Your task to perform on an android device: toggle translation in the chrome app Image 0: 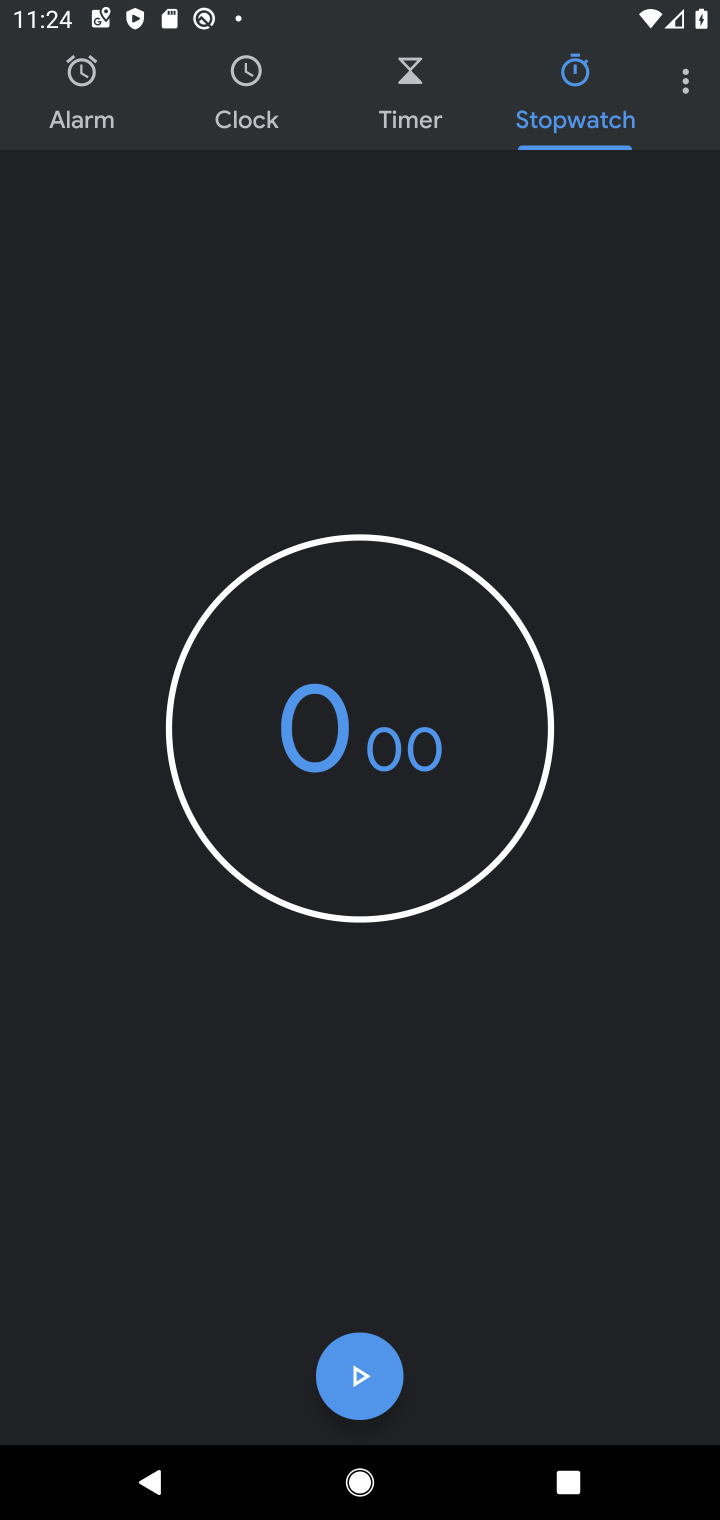
Step 0: press back button
Your task to perform on an android device: toggle translation in the chrome app Image 1: 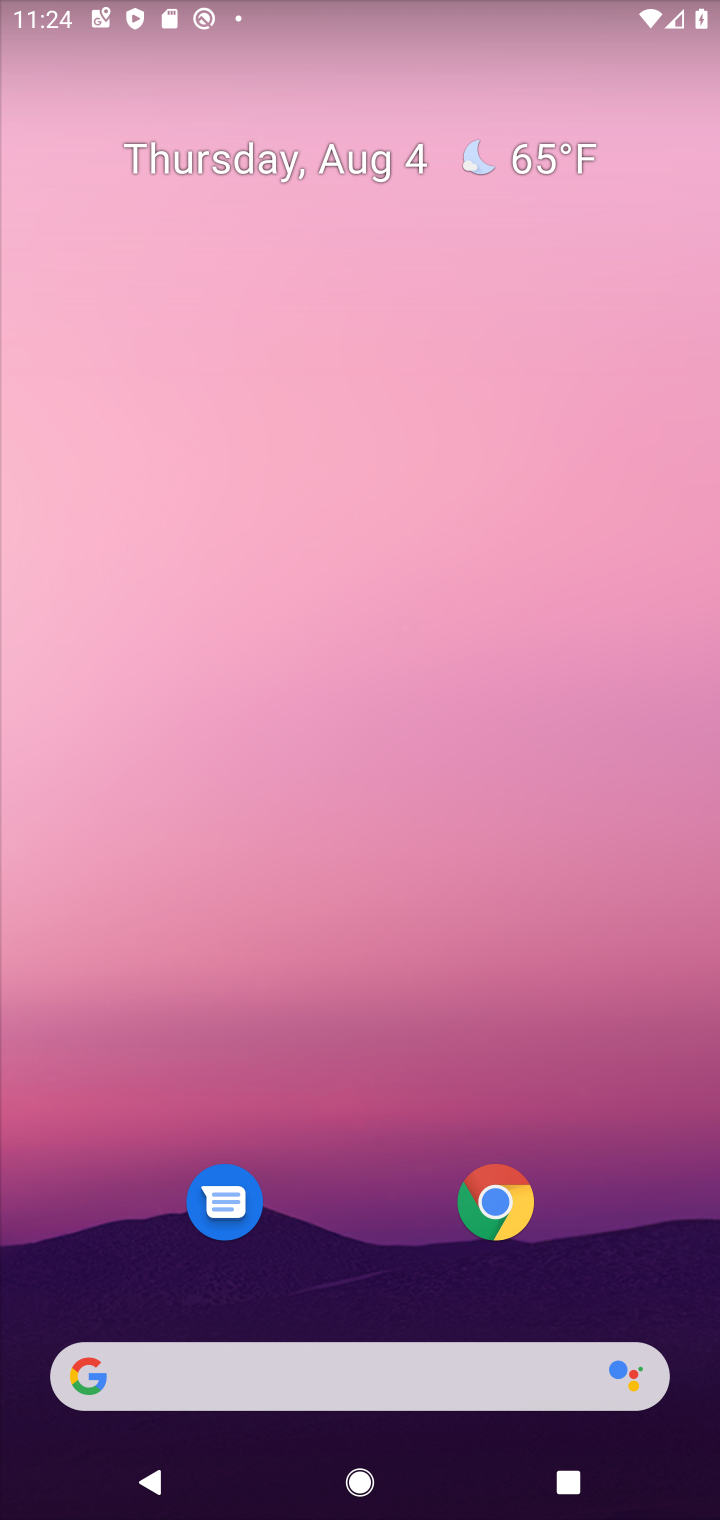
Step 1: click (482, 1180)
Your task to perform on an android device: toggle translation in the chrome app Image 2: 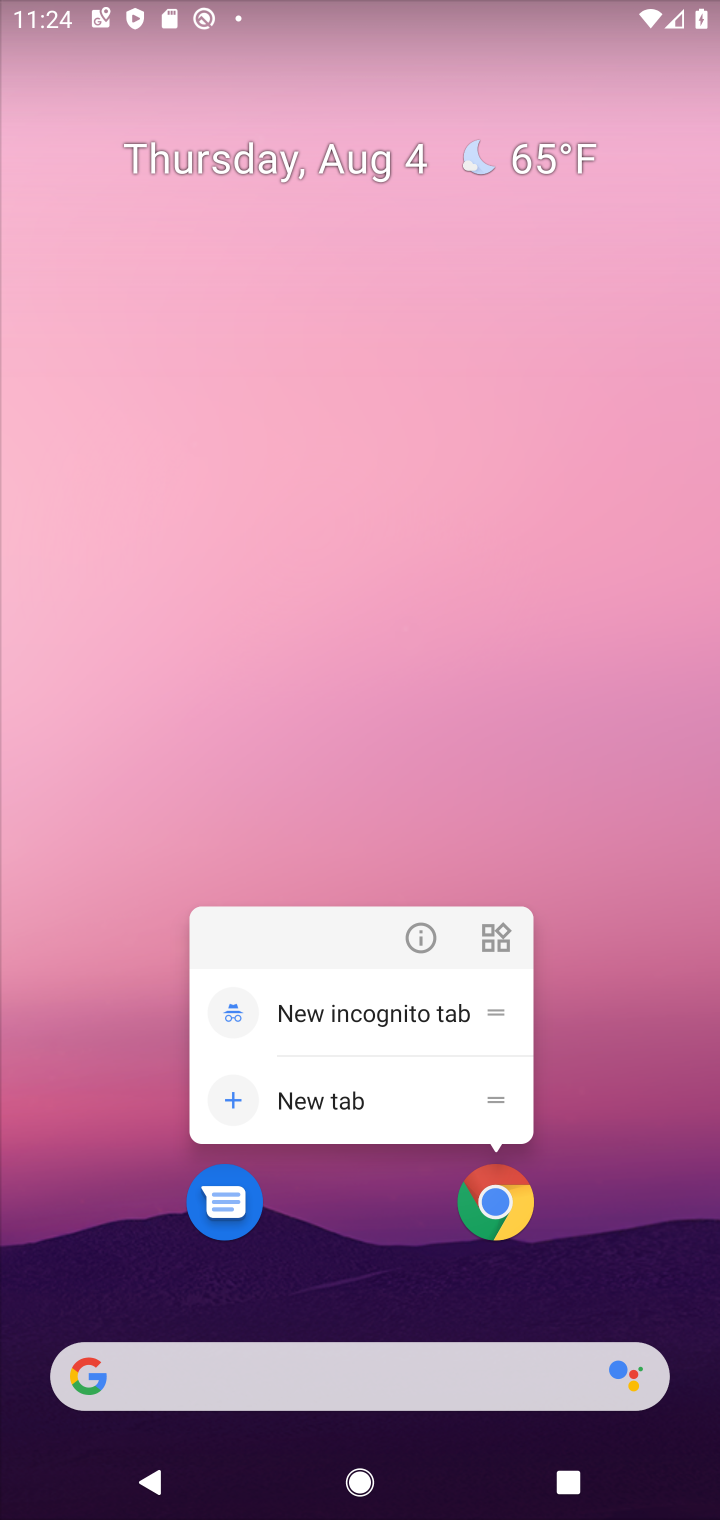
Step 2: click (495, 1199)
Your task to perform on an android device: toggle translation in the chrome app Image 3: 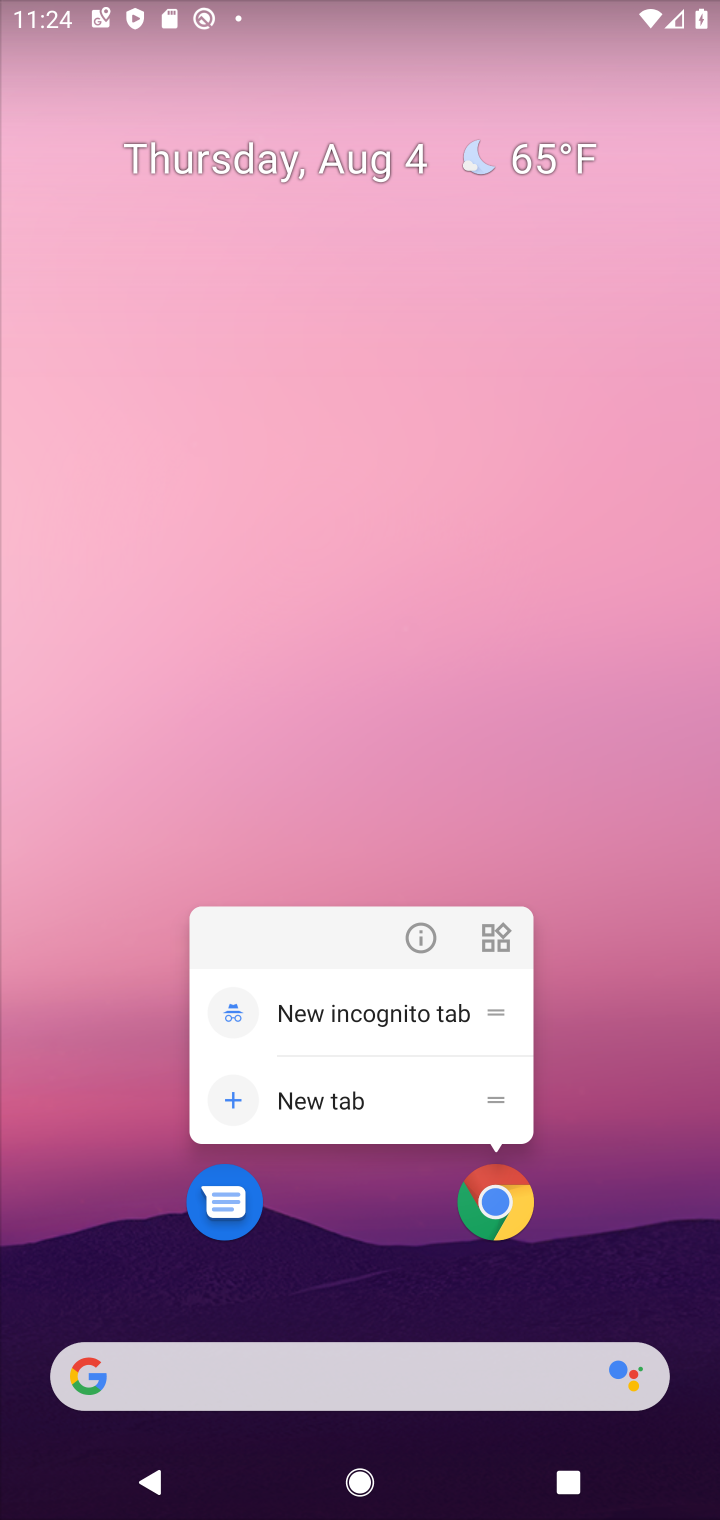
Step 3: click (492, 1202)
Your task to perform on an android device: toggle translation in the chrome app Image 4: 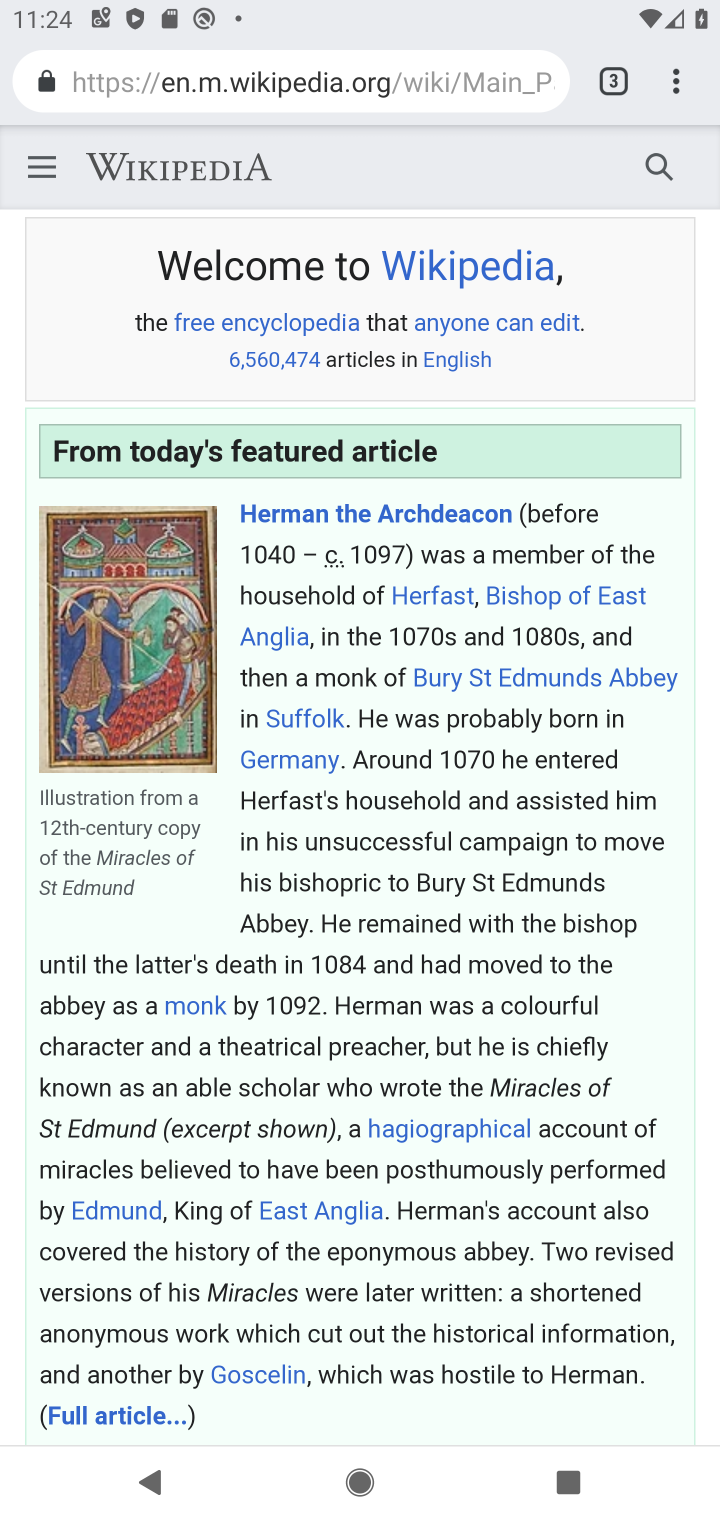
Step 4: drag from (663, 63) to (394, 987)
Your task to perform on an android device: toggle translation in the chrome app Image 5: 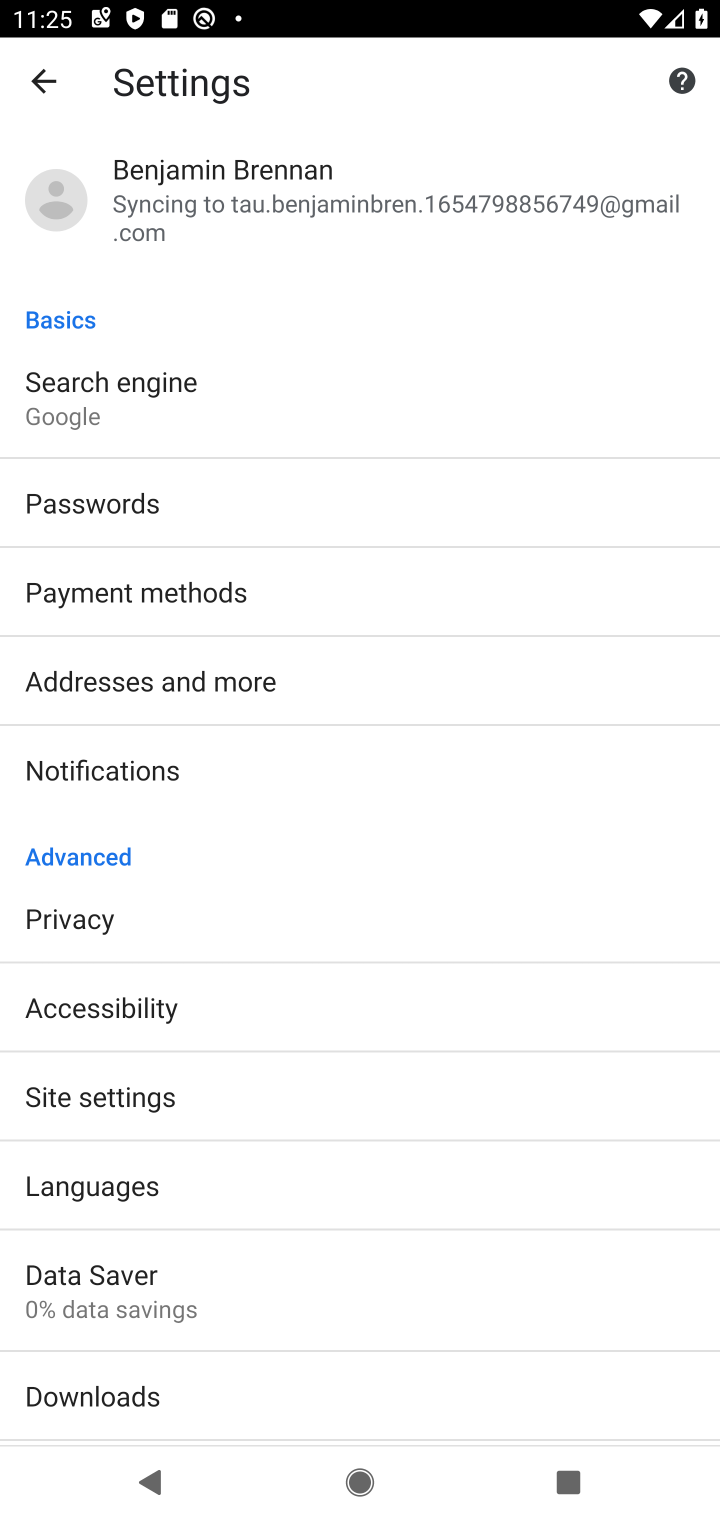
Step 5: click (141, 1222)
Your task to perform on an android device: toggle translation in the chrome app Image 6: 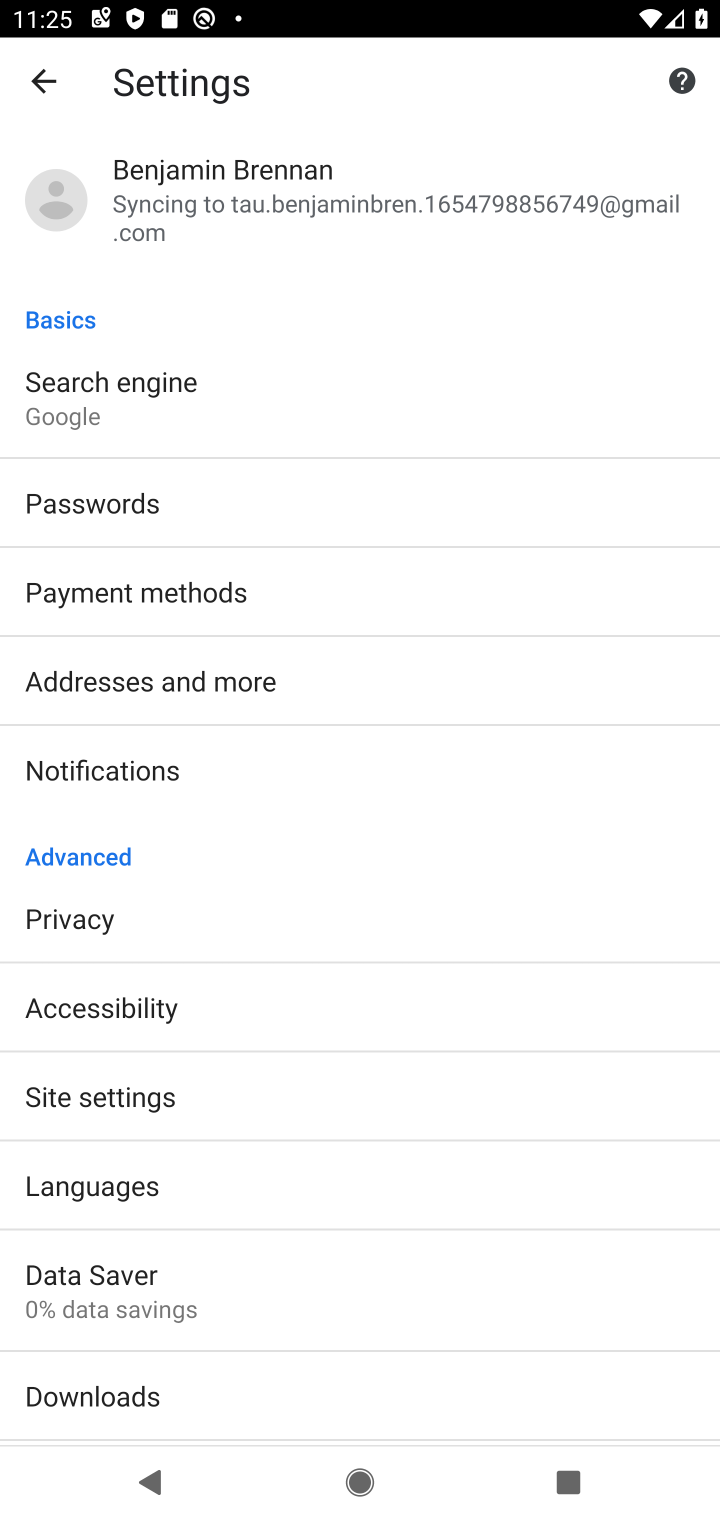
Step 6: click (108, 1174)
Your task to perform on an android device: toggle translation in the chrome app Image 7: 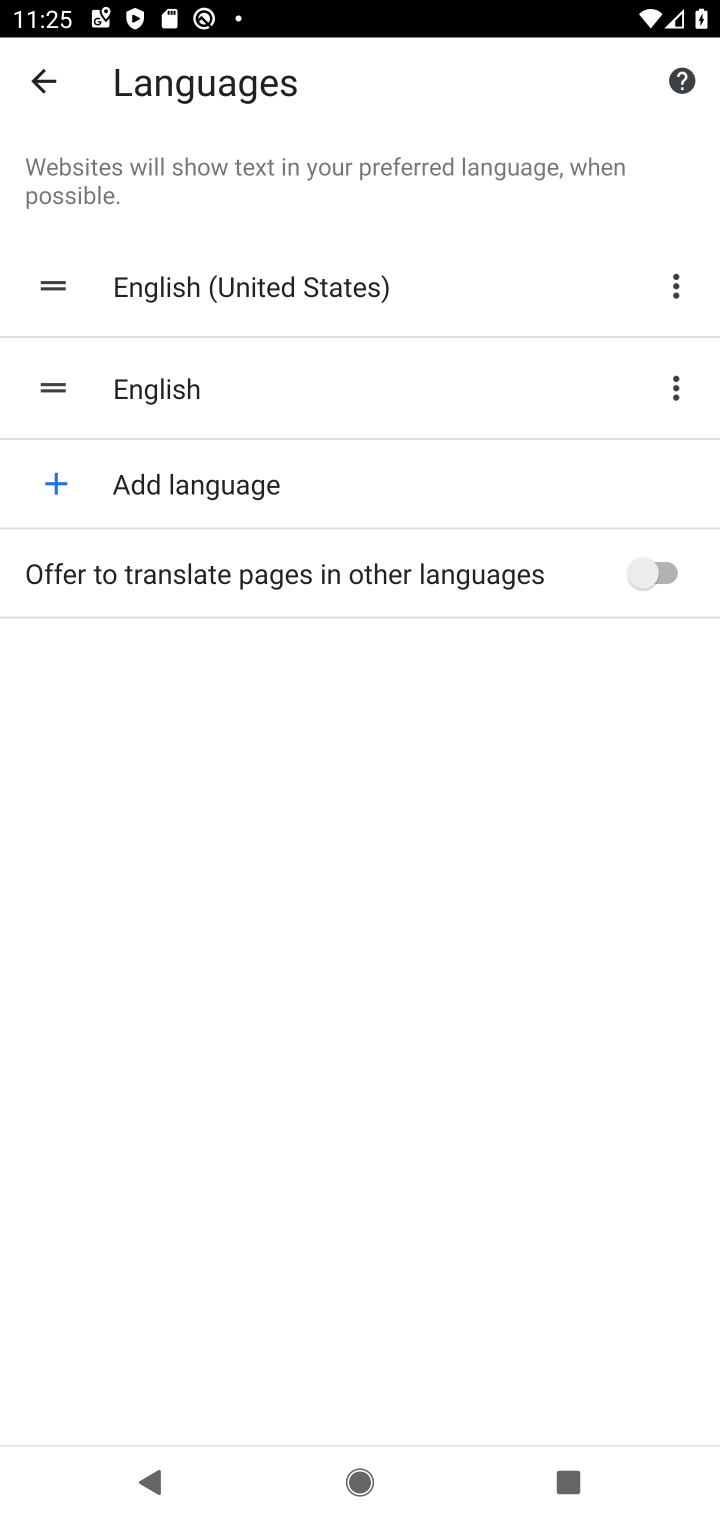
Step 7: click (636, 576)
Your task to perform on an android device: toggle translation in the chrome app Image 8: 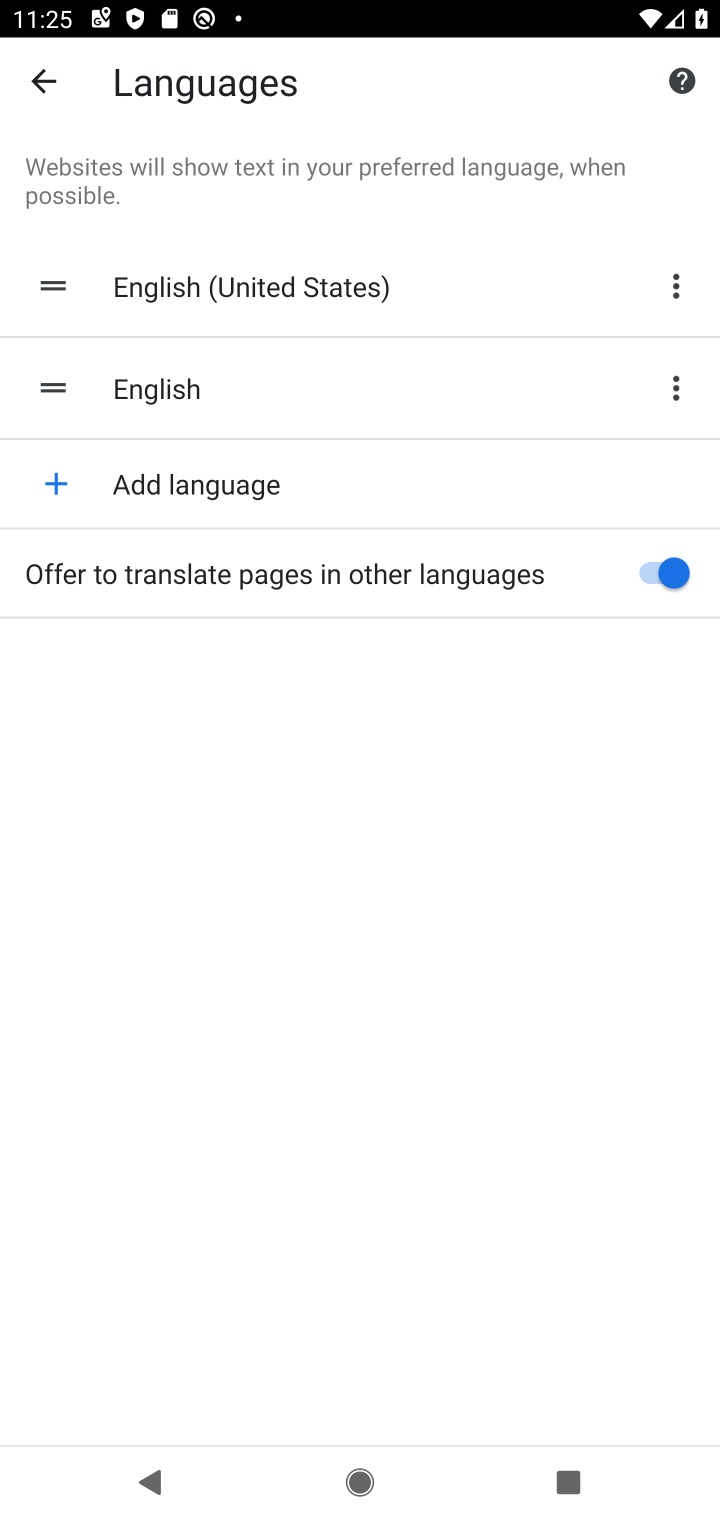
Step 8: task complete